Your task to perform on an android device: search for starred emails in the gmail app Image 0: 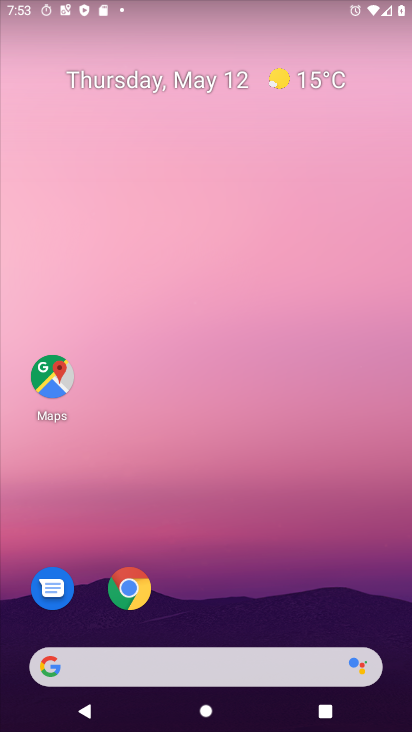
Step 0: drag from (124, 617) to (151, 221)
Your task to perform on an android device: search for starred emails in the gmail app Image 1: 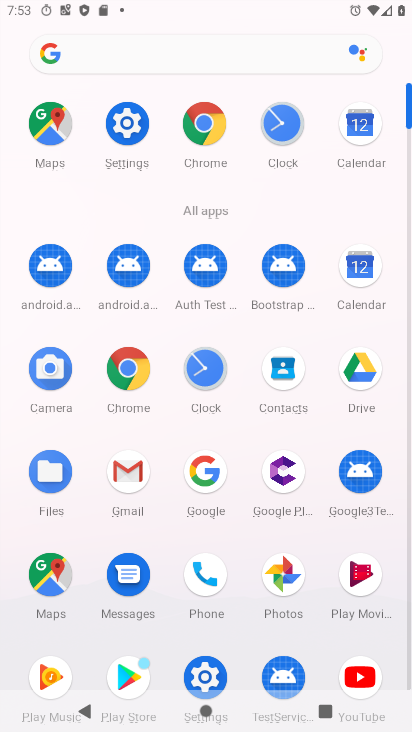
Step 1: click (133, 468)
Your task to perform on an android device: search for starred emails in the gmail app Image 2: 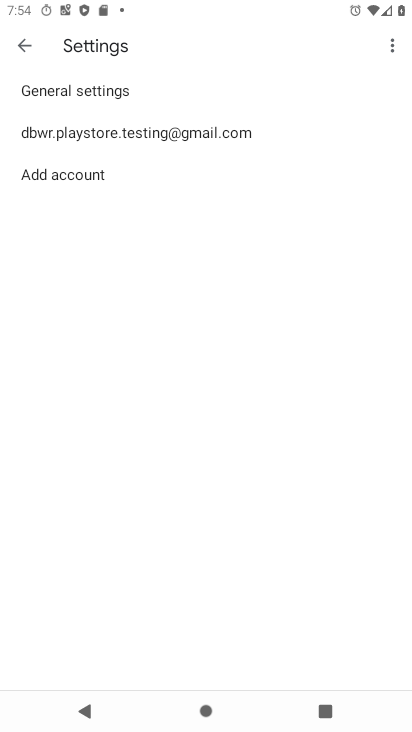
Step 2: click (24, 39)
Your task to perform on an android device: search for starred emails in the gmail app Image 3: 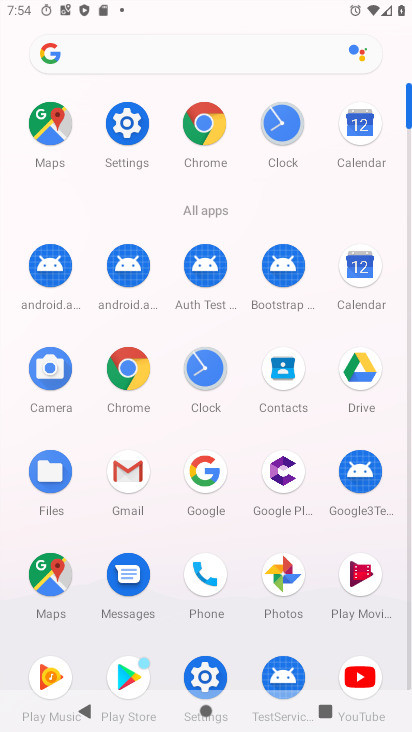
Step 3: click (130, 462)
Your task to perform on an android device: search for starred emails in the gmail app Image 4: 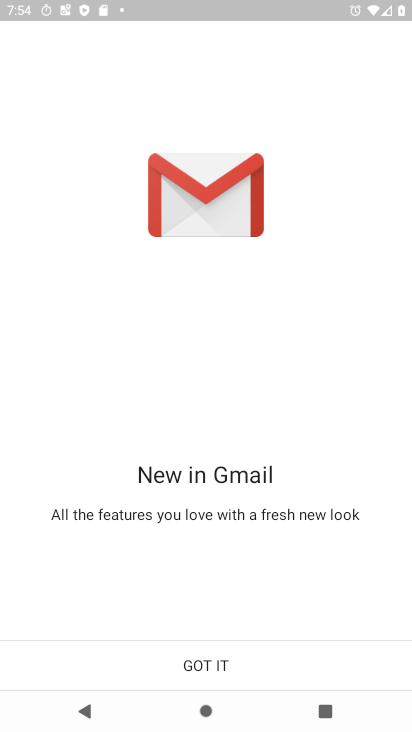
Step 4: click (199, 667)
Your task to perform on an android device: search for starred emails in the gmail app Image 5: 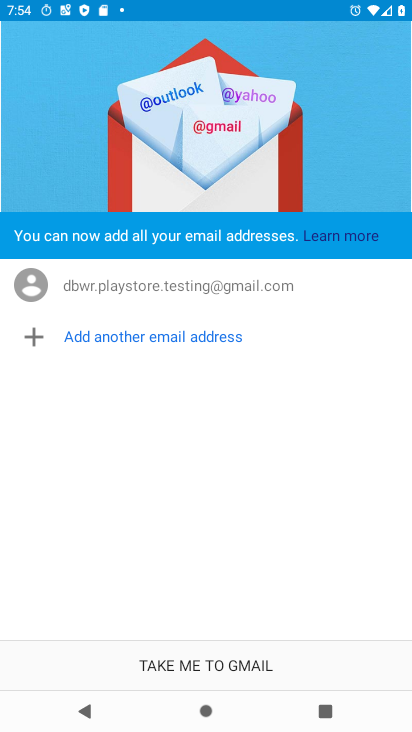
Step 5: click (199, 664)
Your task to perform on an android device: search for starred emails in the gmail app Image 6: 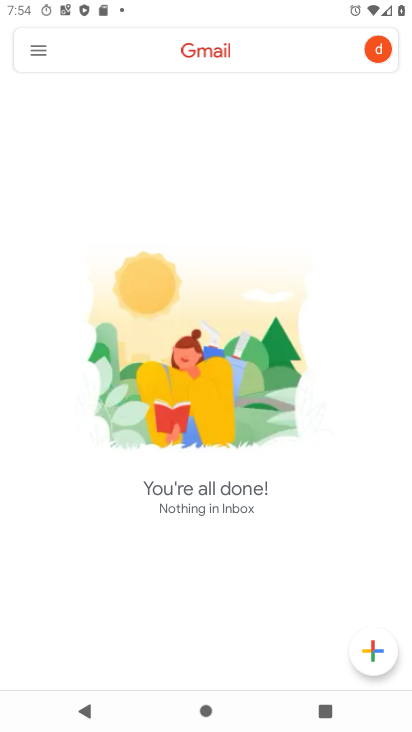
Step 6: click (41, 49)
Your task to perform on an android device: search for starred emails in the gmail app Image 7: 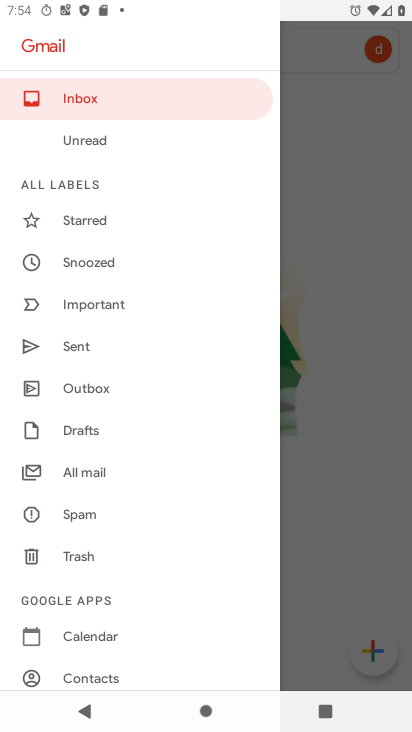
Step 7: click (97, 211)
Your task to perform on an android device: search for starred emails in the gmail app Image 8: 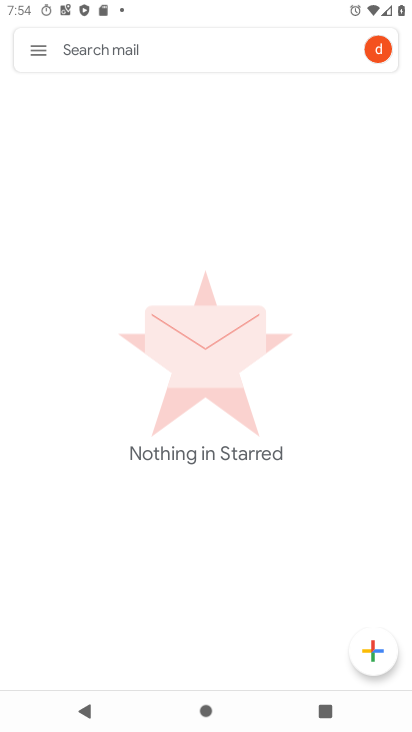
Step 8: task complete